Your task to perform on an android device: Go to network settings Image 0: 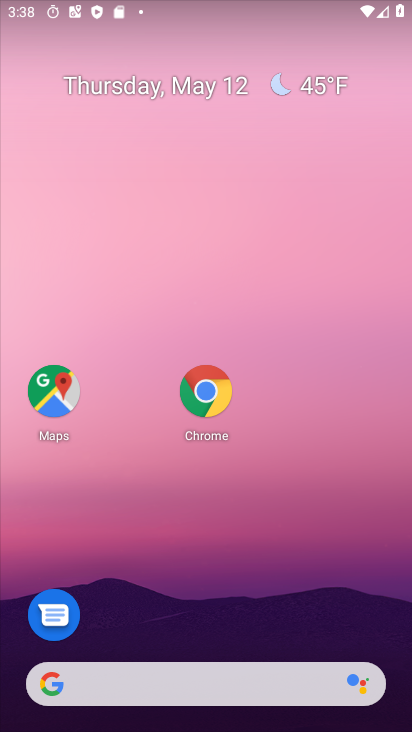
Step 0: drag from (240, 578) to (243, 92)
Your task to perform on an android device: Go to network settings Image 1: 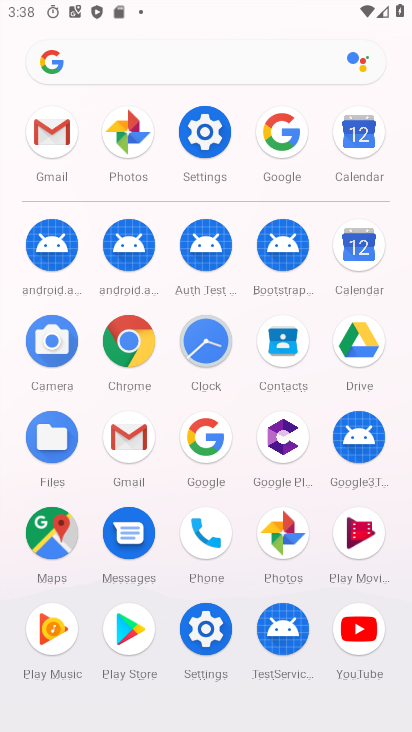
Step 1: click (203, 136)
Your task to perform on an android device: Go to network settings Image 2: 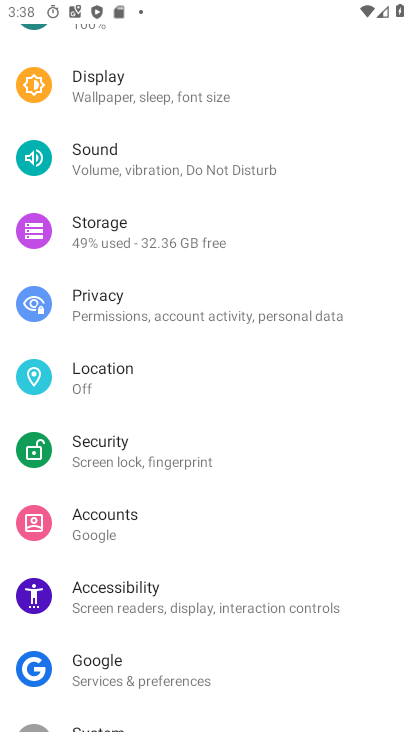
Step 2: drag from (198, 145) to (301, 663)
Your task to perform on an android device: Go to network settings Image 3: 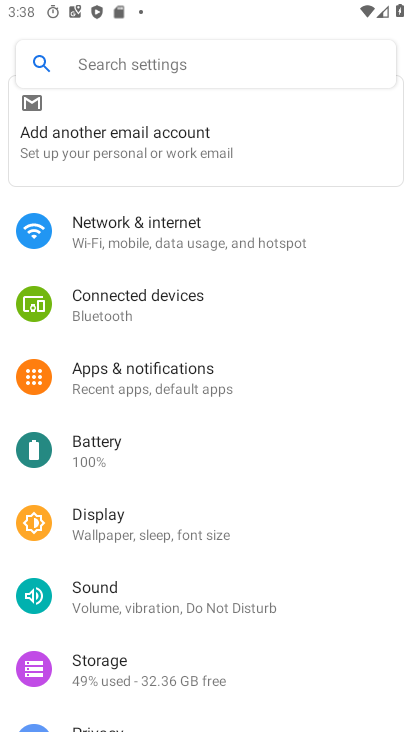
Step 3: click (130, 239)
Your task to perform on an android device: Go to network settings Image 4: 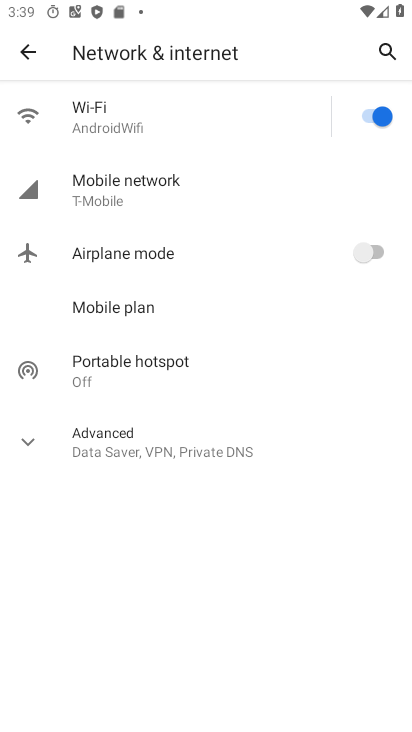
Step 4: click (113, 199)
Your task to perform on an android device: Go to network settings Image 5: 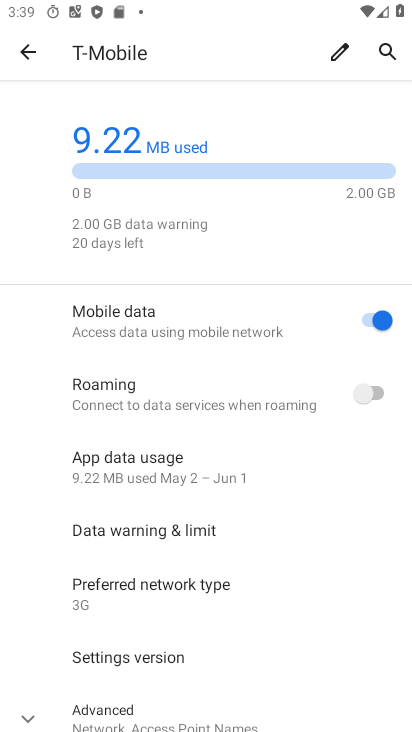
Step 5: task complete